Your task to perform on an android device: turn off location Image 0: 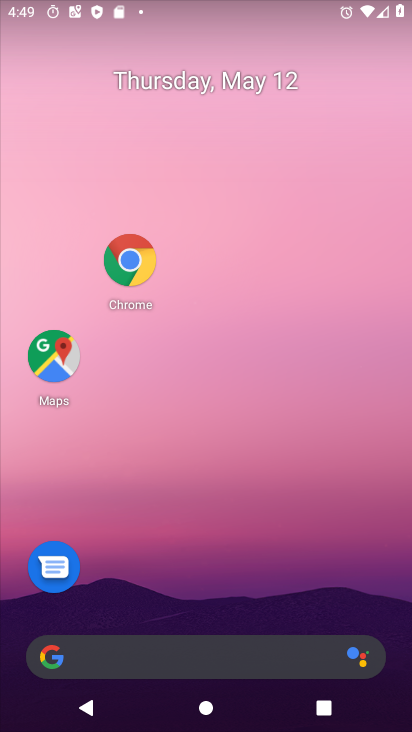
Step 0: drag from (163, 635) to (200, 306)
Your task to perform on an android device: turn off location Image 1: 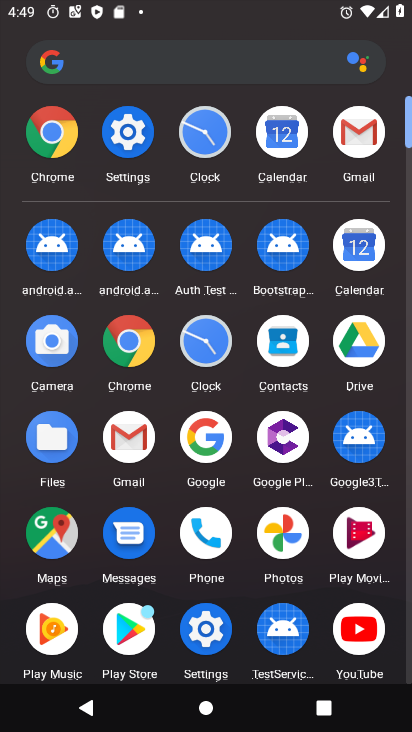
Step 1: click (126, 144)
Your task to perform on an android device: turn off location Image 2: 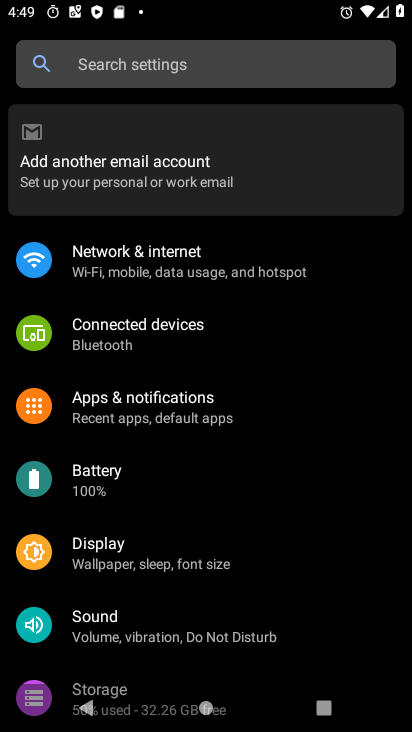
Step 2: drag from (155, 645) to (140, 367)
Your task to perform on an android device: turn off location Image 3: 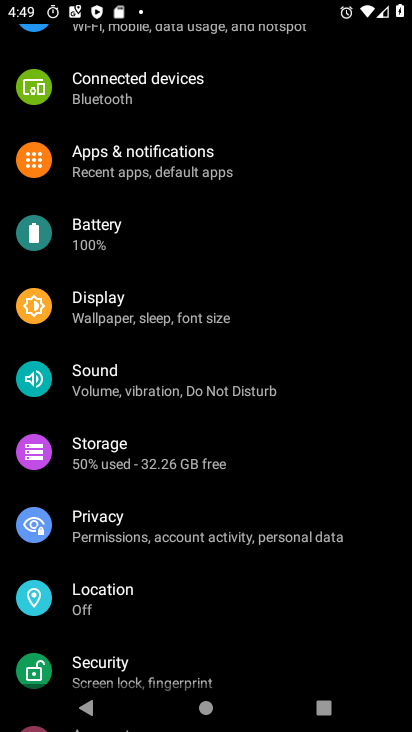
Step 3: click (133, 596)
Your task to perform on an android device: turn off location Image 4: 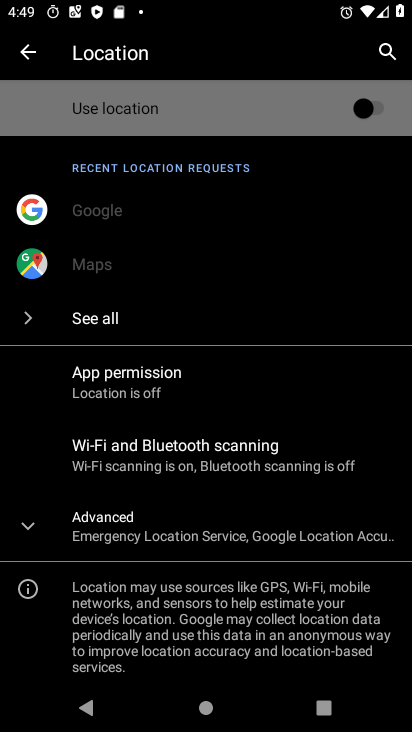
Step 4: task complete